Your task to perform on an android device: Search for Mexican restaurants on Maps Image 0: 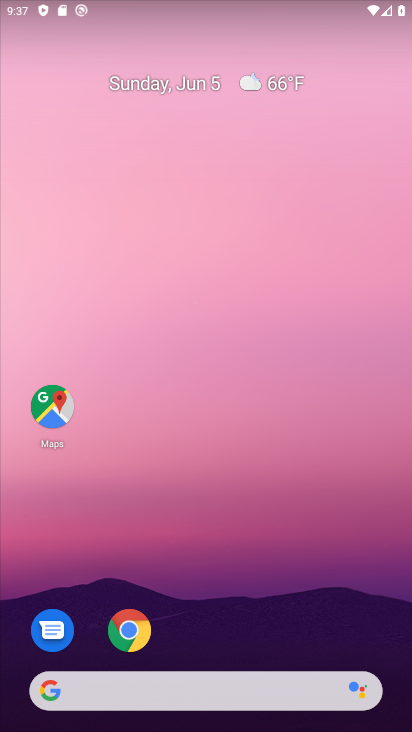
Step 0: drag from (258, 728) to (237, 56)
Your task to perform on an android device: Search for Mexican restaurants on Maps Image 1: 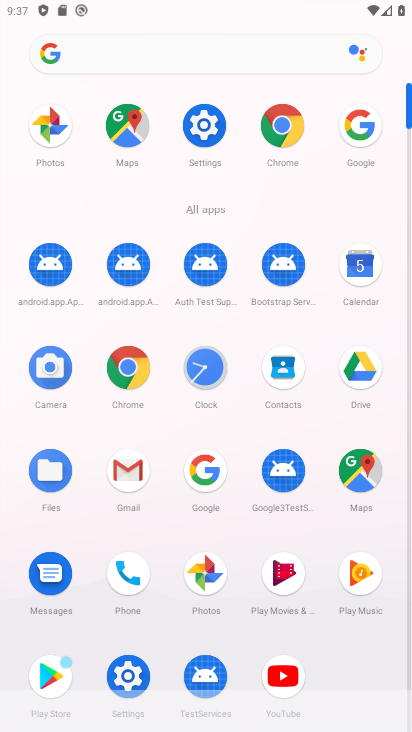
Step 1: click (360, 473)
Your task to perform on an android device: Search for Mexican restaurants on Maps Image 2: 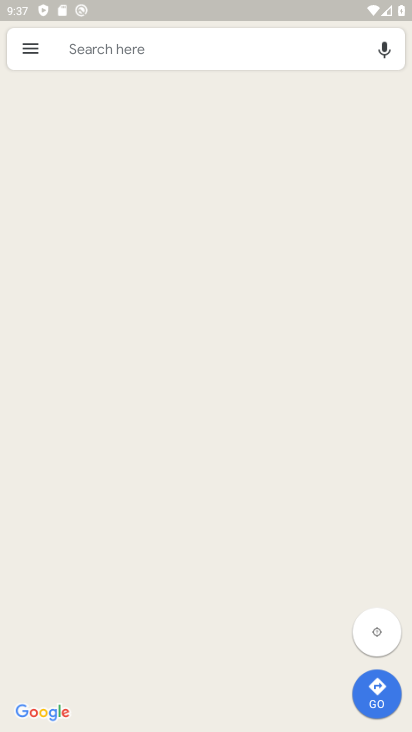
Step 2: click (167, 47)
Your task to perform on an android device: Search for Mexican restaurants on Maps Image 3: 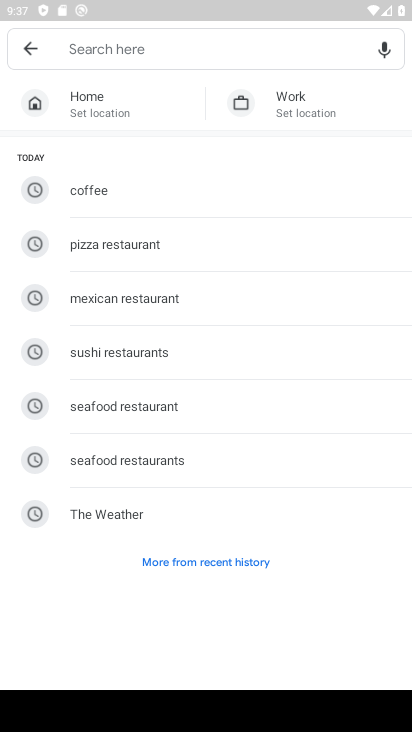
Step 3: type "Mexican restaurants"
Your task to perform on an android device: Search for Mexican restaurants on Maps Image 4: 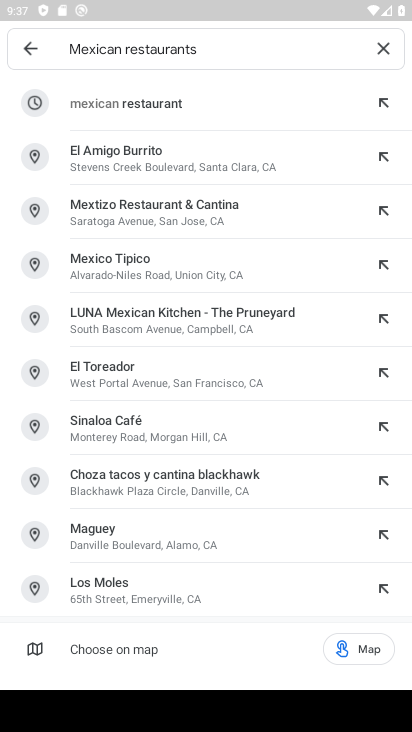
Step 4: click (134, 100)
Your task to perform on an android device: Search for Mexican restaurants on Maps Image 5: 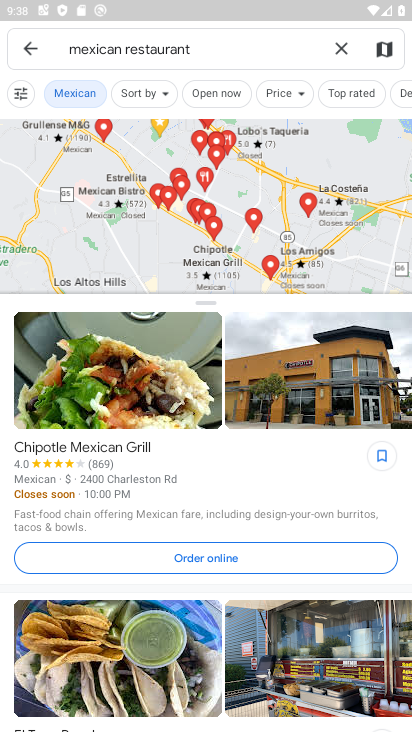
Step 5: task complete